Your task to perform on an android device: turn on data saver in the chrome app Image 0: 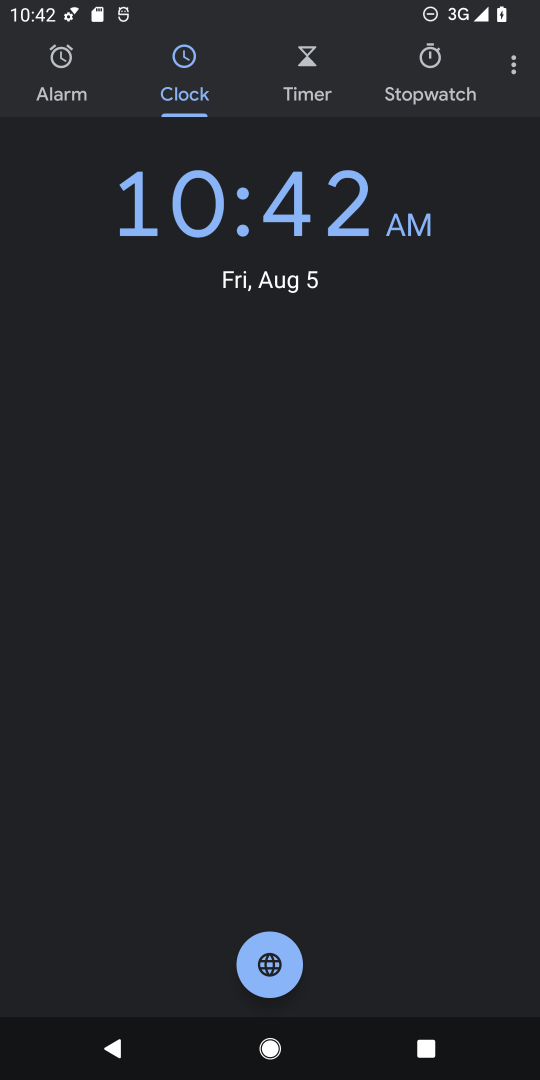
Step 0: press home button
Your task to perform on an android device: turn on data saver in the chrome app Image 1: 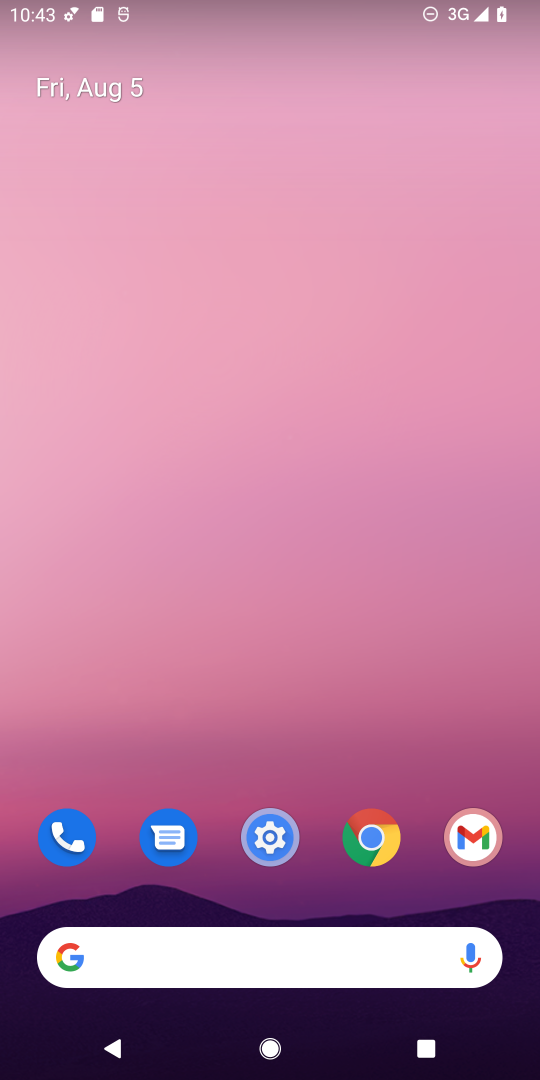
Step 1: click (364, 830)
Your task to perform on an android device: turn on data saver in the chrome app Image 2: 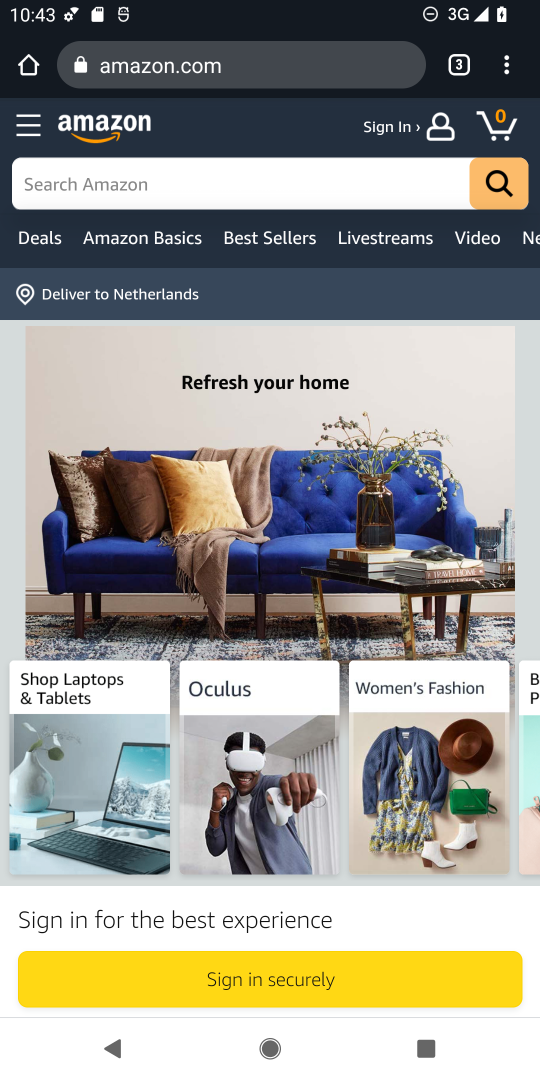
Step 2: click (507, 70)
Your task to perform on an android device: turn on data saver in the chrome app Image 3: 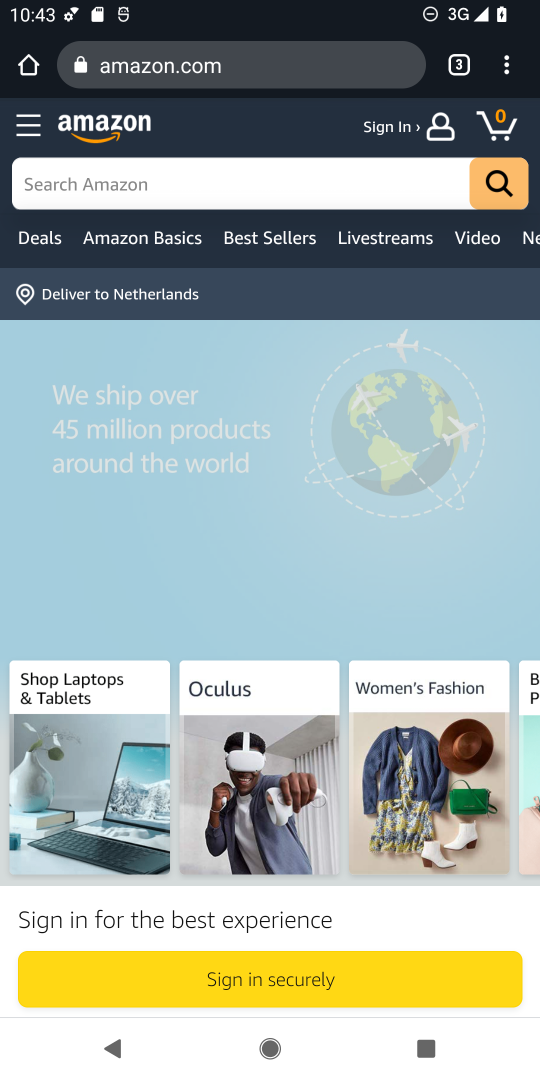
Step 3: click (507, 77)
Your task to perform on an android device: turn on data saver in the chrome app Image 4: 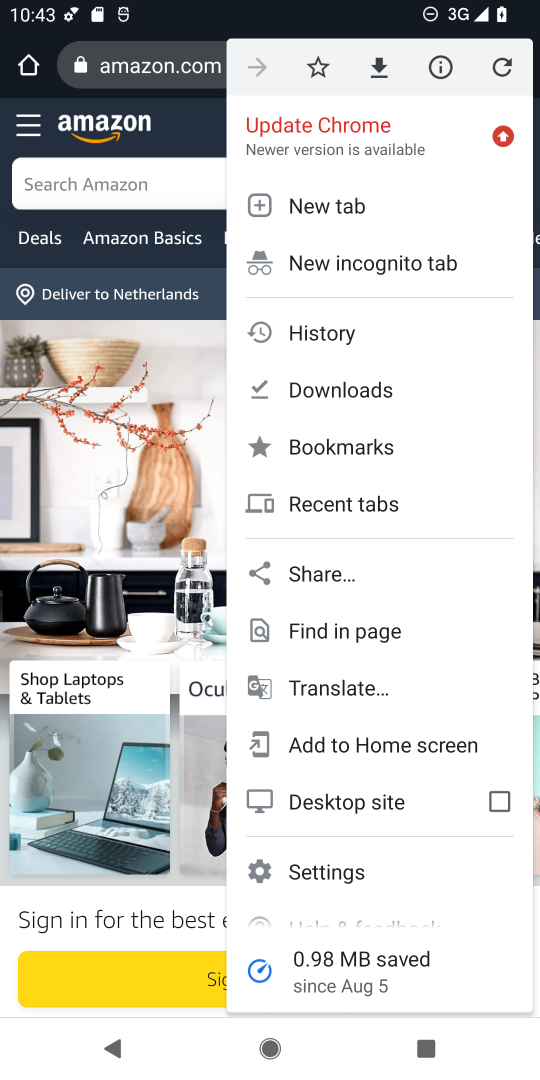
Step 4: click (363, 862)
Your task to perform on an android device: turn on data saver in the chrome app Image 5: 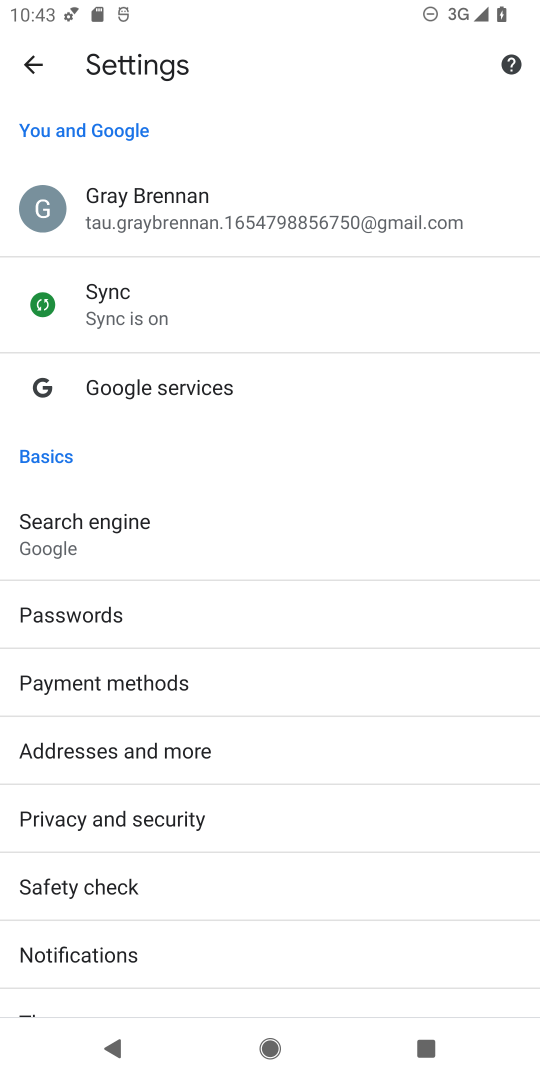
Step 5: drag from (342, 837) to (335, 248)
Your task to perform on an android device: turn on data saver in the chrome app Image 6: 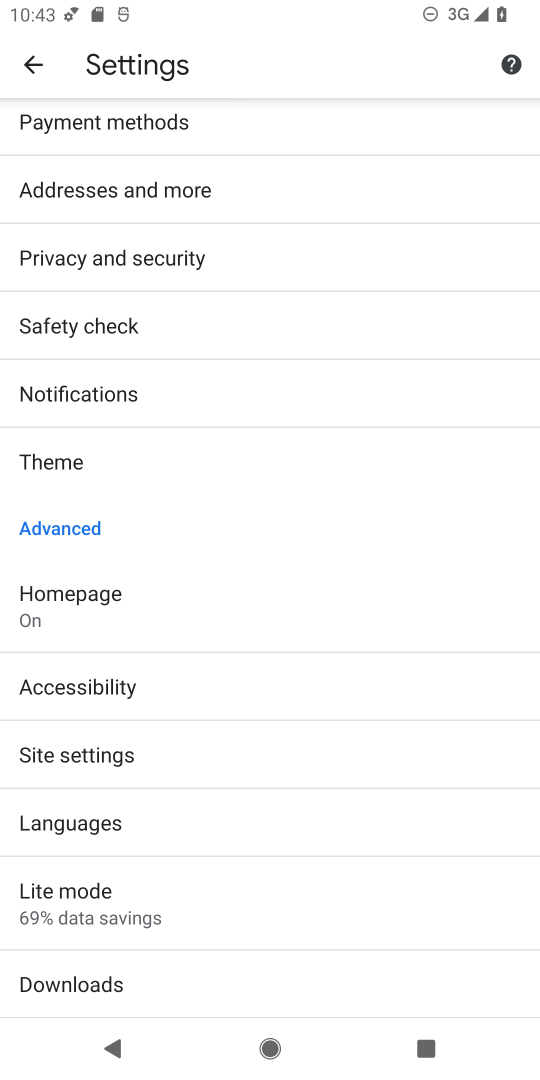
Step 6: click (129, 916)
Your task to perform on an android device: turn on data saver in the chrome app Image 7: 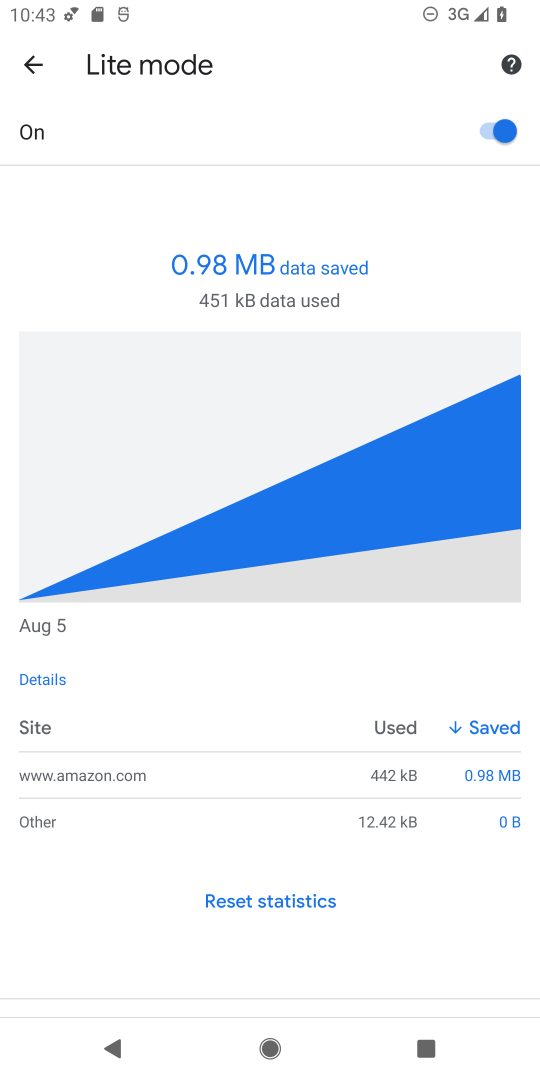
Step 7: task complete